Your task to perform on an android device: turn on airplane mode Image 0: 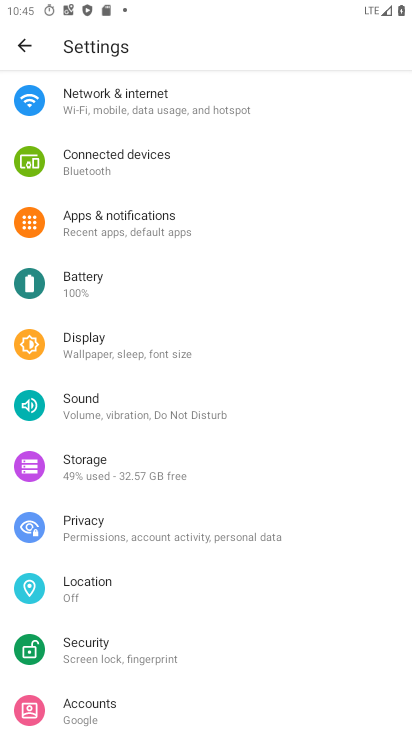
Step 0: drag from (207, 114) to (214, 537)
Your task to perform on an android device: turn on airplane mode Image 1: 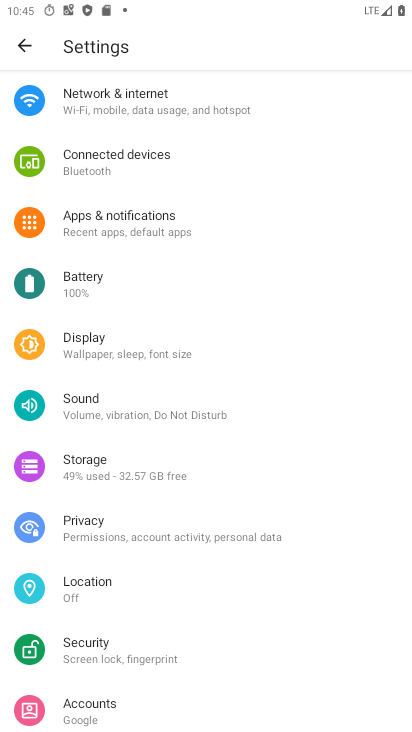
Step 1: click (117, 108)
Your task to perform on an android device: turn on airplane mode Image 2: 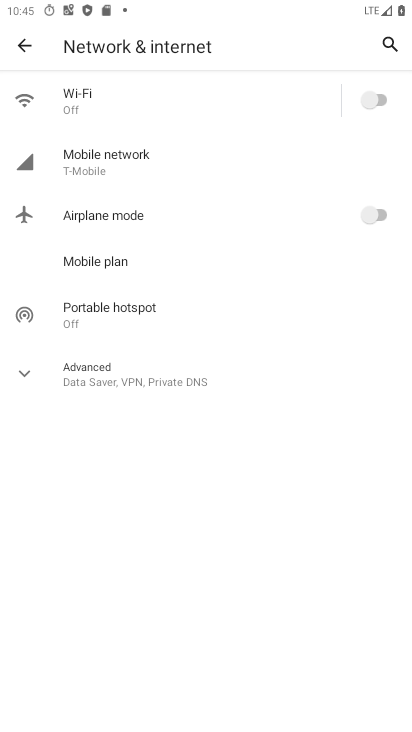
Step 2: click (378, 213)
Your task to perform on an android device: turn on airplane mode Image 3: 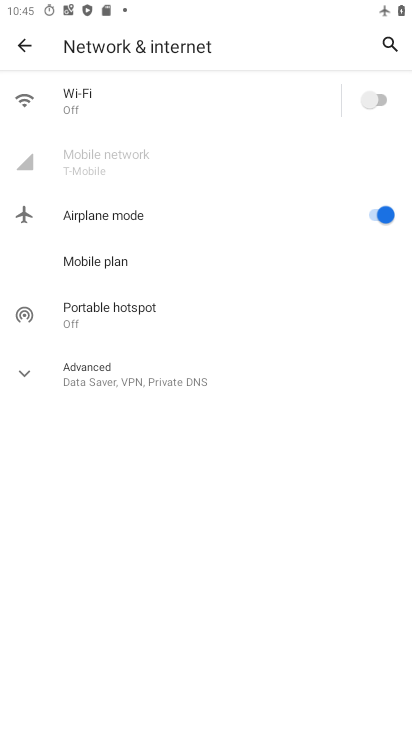
Step 3: task complete